Your task to perform on an android device: Open Google Image 0: 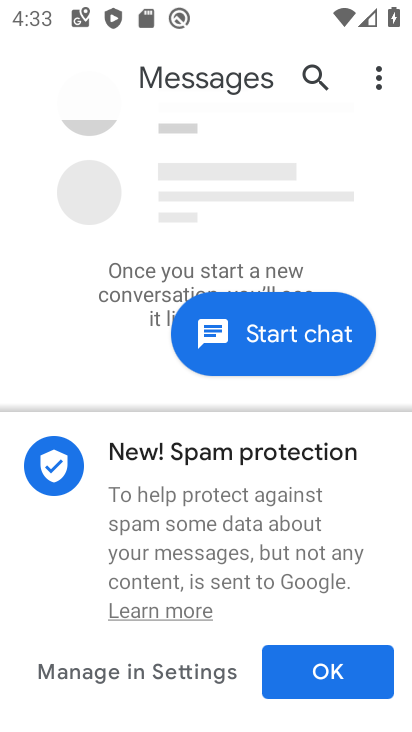
Step 0: press back button
Your task to perform on an android device: Open Google Image 1: 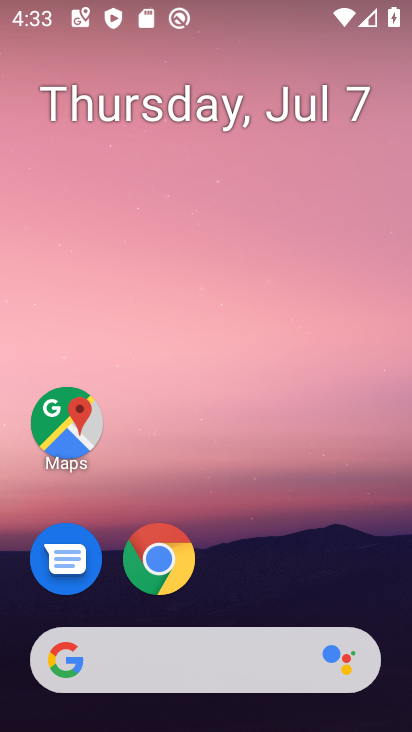
Step 1: drag from (231, 605) to (305, 10)
Your task to perform on an android device: Open Google Image 2: 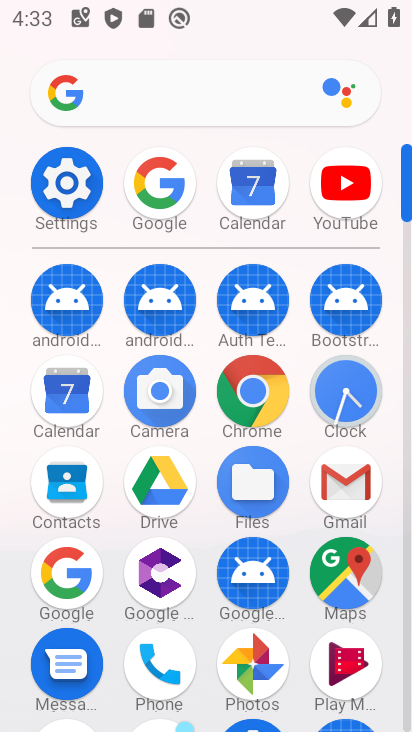
Step 2: click (168, 186)
Your task to perform on an android device: Open Google Image 3: 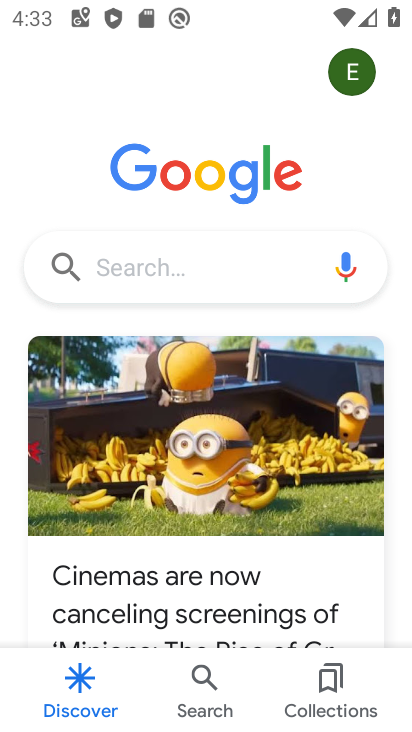
Step 3: task complete